Your task to perform on an android device: set the timer Image 0: 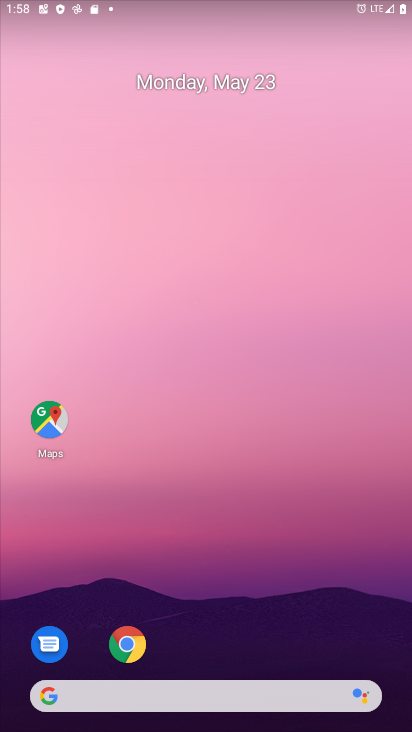
Step 0: drag from (230, 679) to (247, 71)
Your task to perform on an android device: set the timer Image 1: 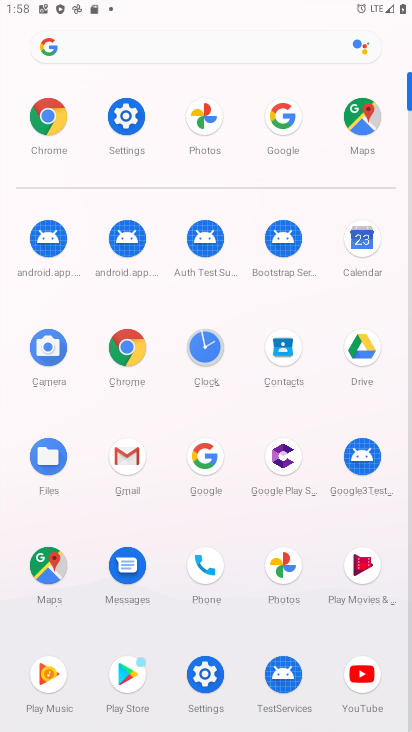
Step 1: click (233, 373)
Your task to perform on an android device: set the timer Image 2: 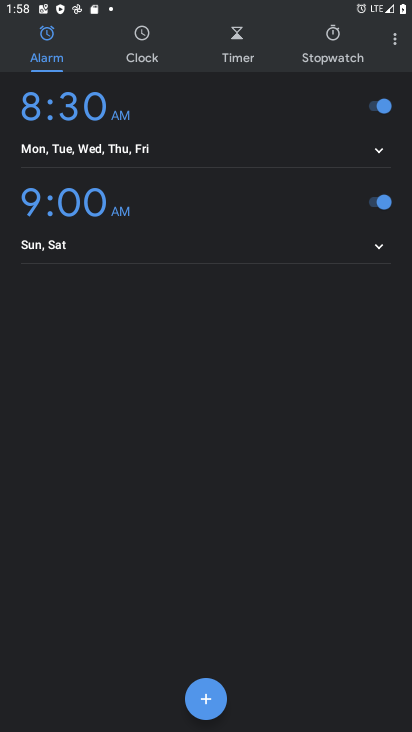
Step 2: click (399, 24)
Your task to perform on an android device: set the timer Image 3: 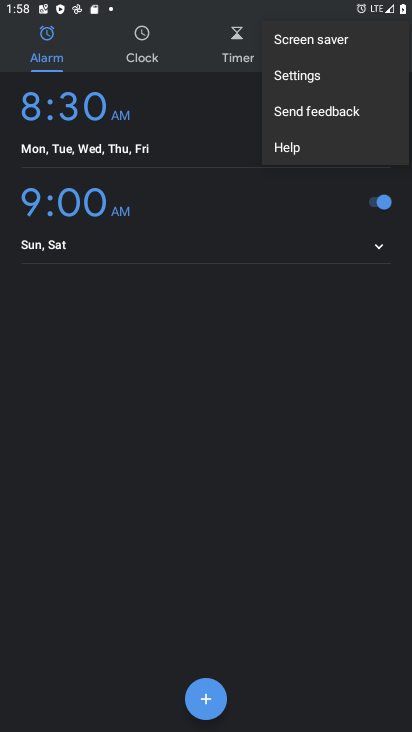
Step 3: click (337, 80)
Your task to perform on an android device: set the timer Image 4: 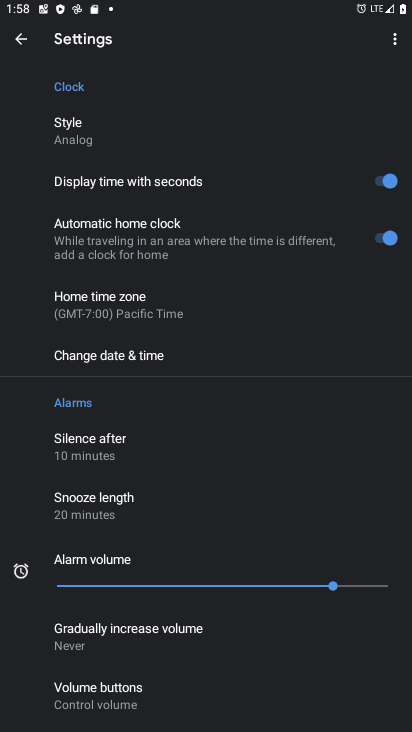
Step 4: click (127, 321)
Your task to perform on an android device: set the timer Image 5: 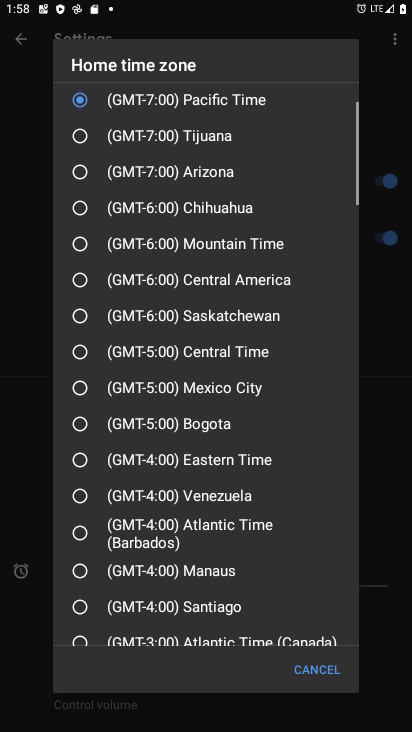
Step 5: click (147, 335)
Your task to perform on an android device: set the timer Image 6: 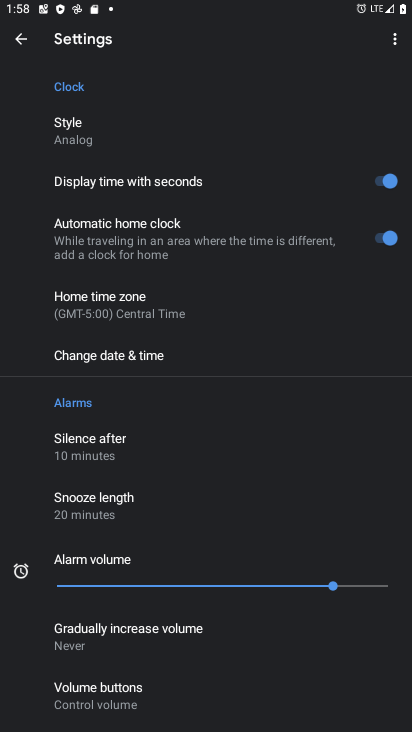
Step 6: task complete